Your task to perform on an android device: Open Google Image 0: 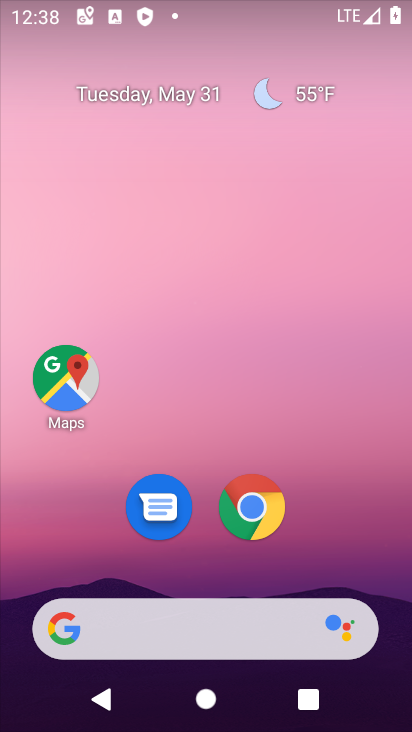
Step 0: drag from (390, 625) to (330, 46)
Your task to perform on an android device: Open Google Image 1: 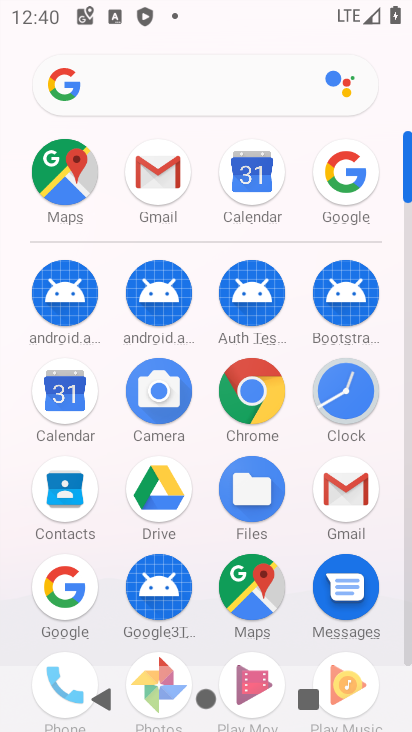
Step 1: click (59, 597)
Your task to perform on an android device: Open Google Image 2: 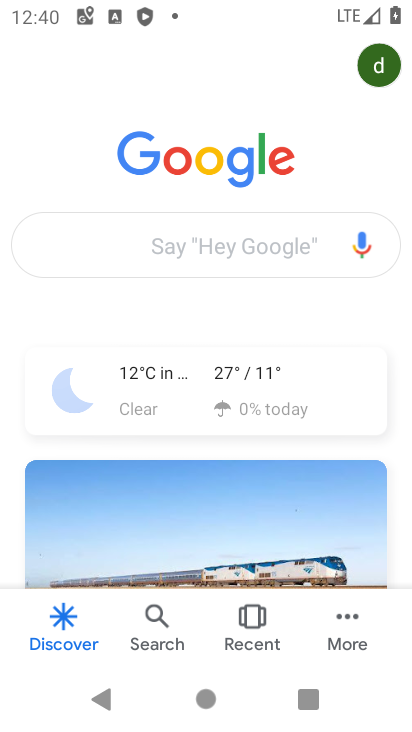
Step 2: task complete